Your task to perform on an android device: set default search engine in the chrome app Image 0: 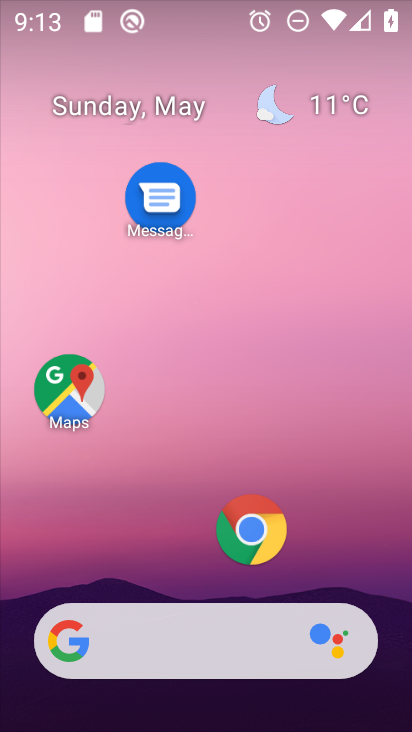
Step 0: click (248, 524)
Your task to perform on an android device: set default search engine in the chrome app Image 1: 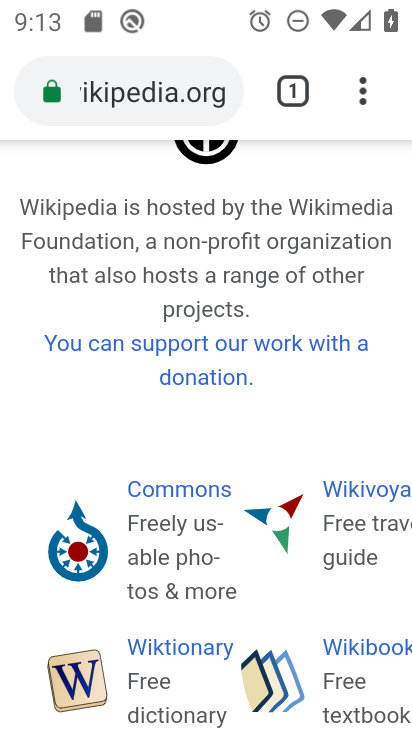
Step 1: press home button
Your task to perform on an android device: set default search engine in the chrome app Image 2: 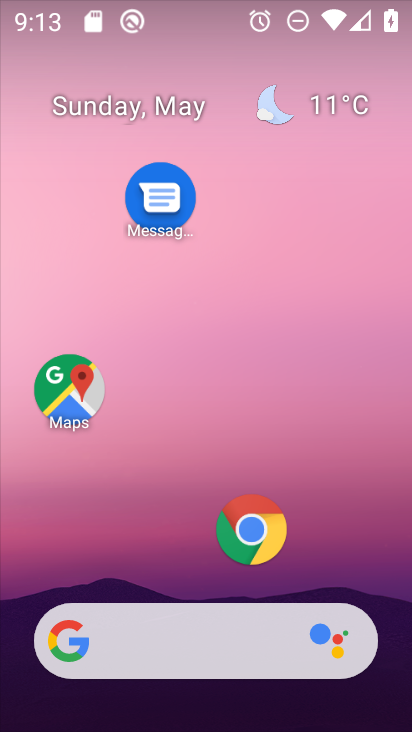
Step 2: click (250, 520)
Your task to perform on an android device: set default search engine in the chrome app Image 3: 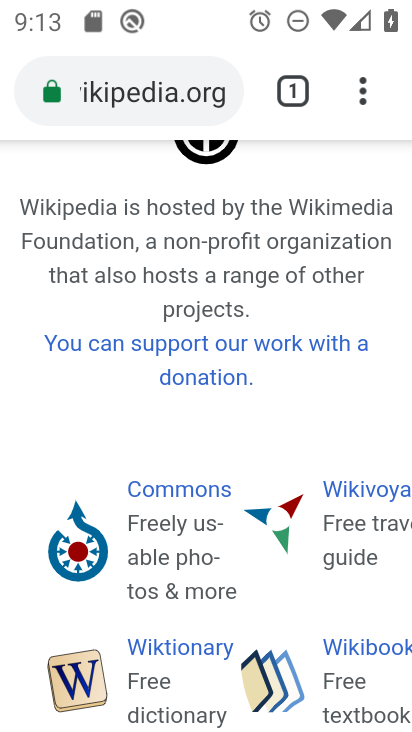
Step 3: click (366, 96)
Your task to perform on an android device: set default search engine in the chrome app Image 4: 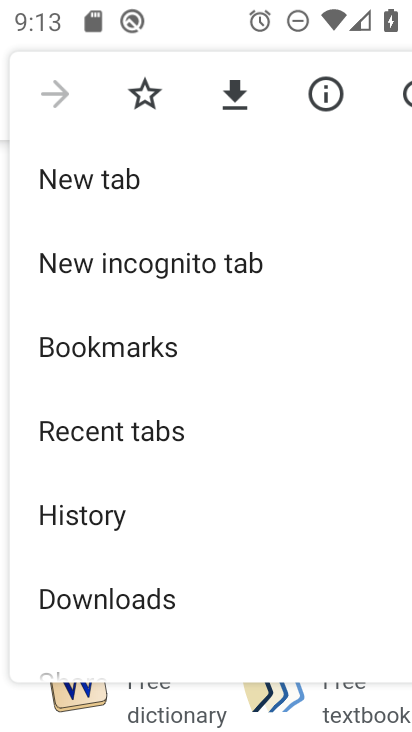
Step 4: drag from (175, 641) to (273, 12)
Your task to perform on an android device: set default search engine in the chrome app Image 5: 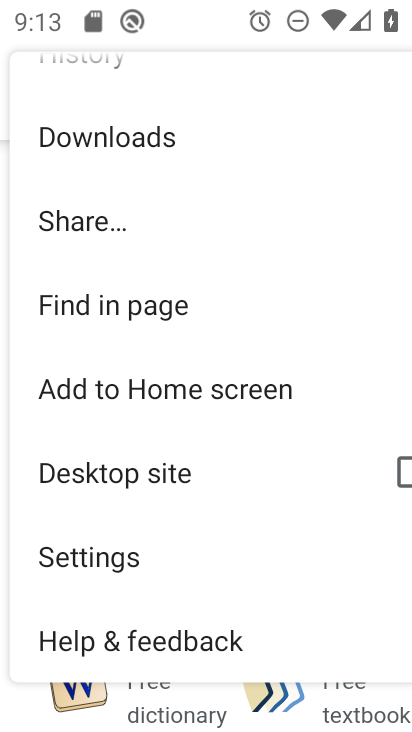
Step 5: click (157, 561)
Your task to perform on an android device: set default search engine in the chrome app Image 6: 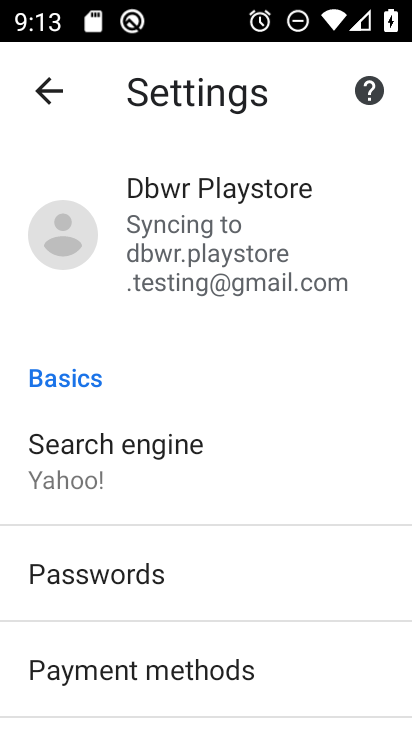
Step 6: click (149, 488)
Your task to perform on an android device: set default search engine in the chrome app Image 7: 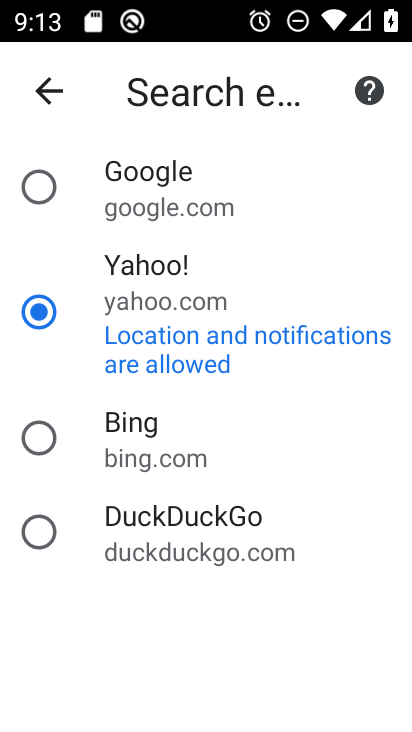
Step 7: click (51, 183)
Your task to perform on an android device: set default search engine in the chrome app Image 8: 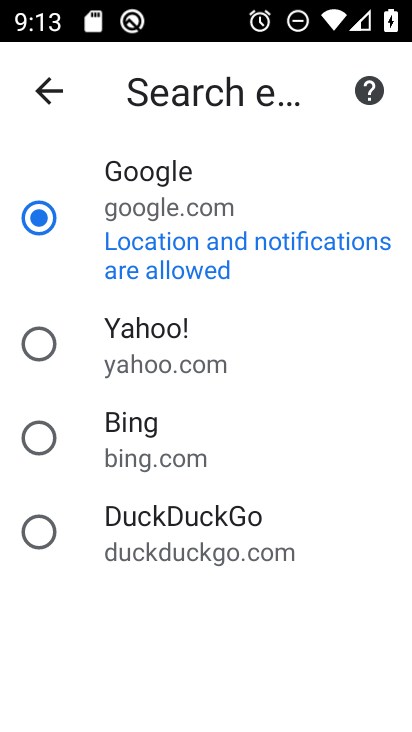
Step 8: task complete